Your task to perform on an android device: What's on my calendar tomorrow? Image 0: 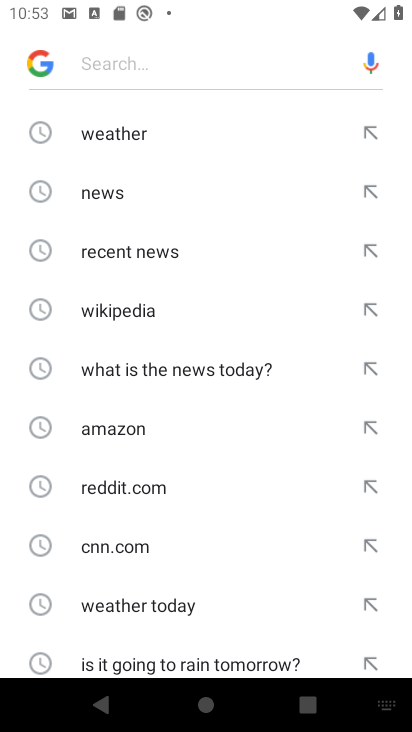
Step 0: press home button
Your task to perform on an android device: What's on my calendar tomorrow? Image 1: 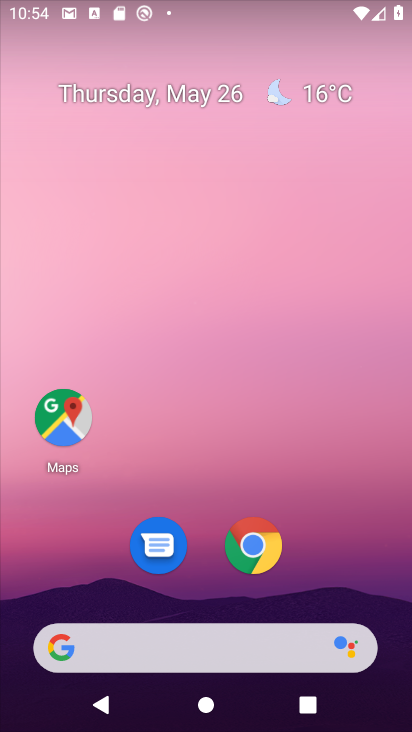
Step 1: drag from (283, 614) to (258, 151)
Your task to perform on an android device: What's on my calendar tomorrow? Image 2: 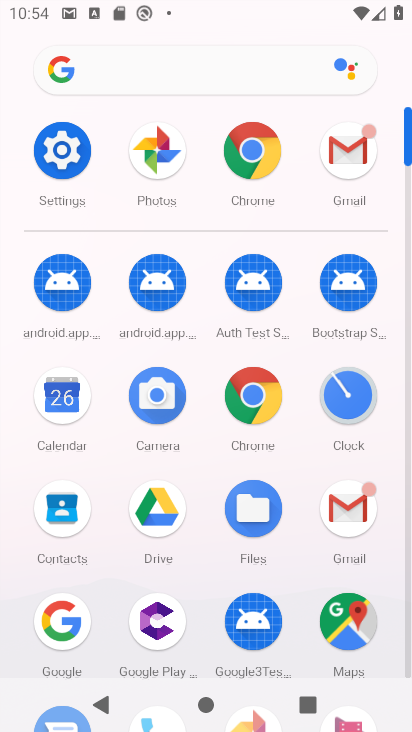
Step 2: click (71, 427)
Your task to perform on an android device: What's on my calendar tomorrow? Image 3: 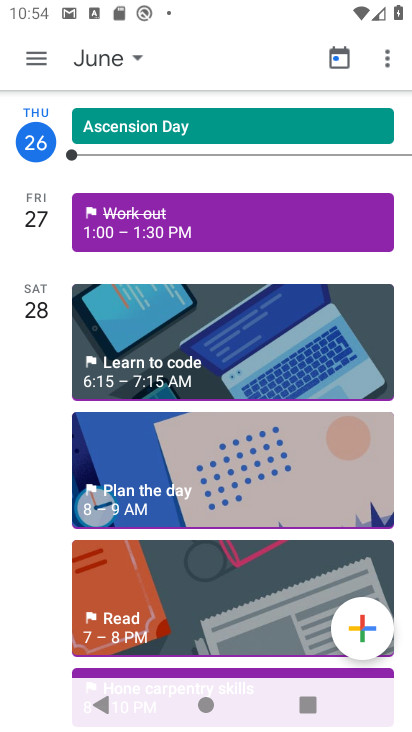
Step 3: click (138, 56)
Your task to perform on an android device: What's on my calendar tomorrow? Image 4: 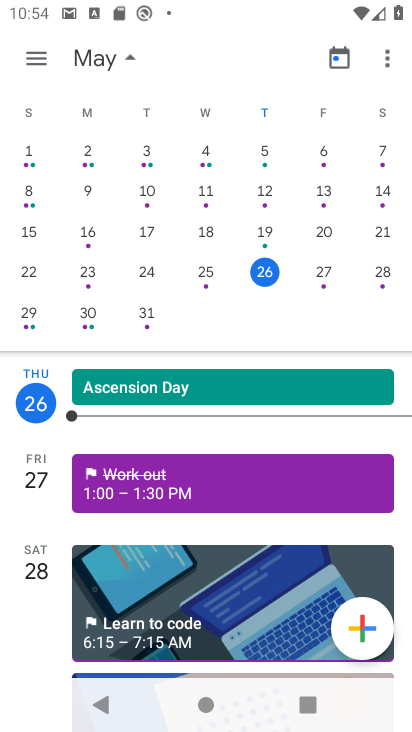
Step 4: click (384, 276)
Your task to perform on an android device: What's on my calendar tomorrow? Image 5: 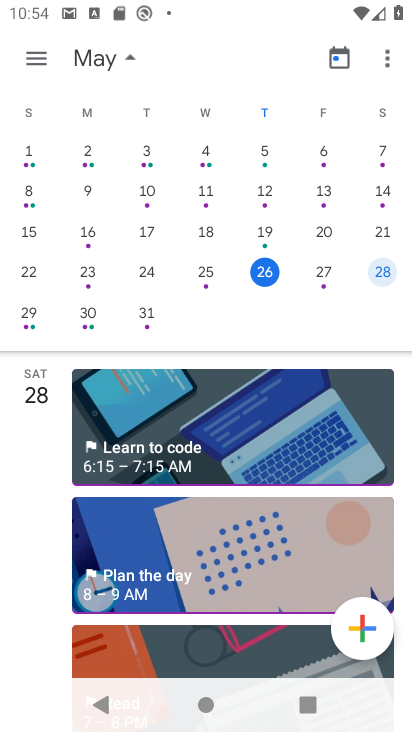
Step 5: click (384, 275)
Your task to perform on an android device: What's on my calendar tomorrow? Image 6: 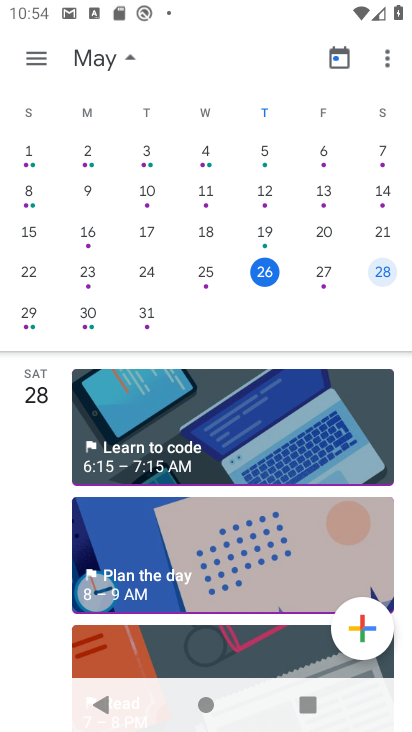
Step 6: click (251, 324)
Your task to perform on an android device: What's on my calendar tomorrow? Image 7: 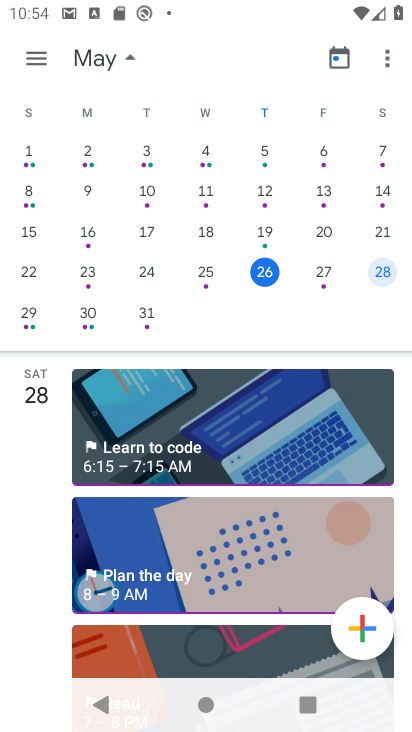
Step 7: click (44, 527)
Your task to perform on an android device: What's on my calendar tomorrow? Image 8: 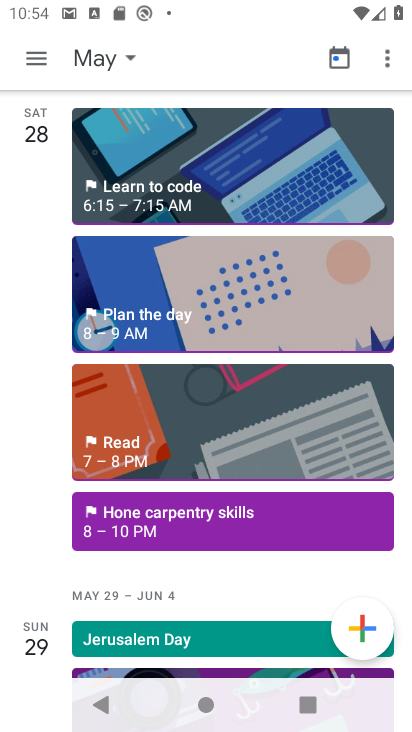
Step 8: task complete